Your task to perform on an android device: Go to eBay Image 0: 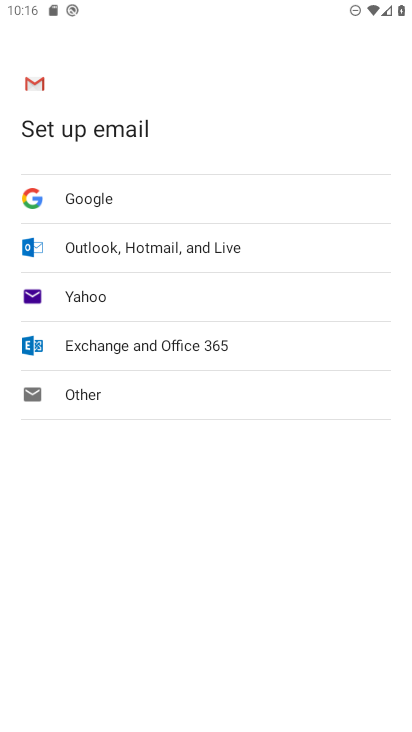
Step 0: press home button
Your task to perform on an android device: Go to eBay Image 1: 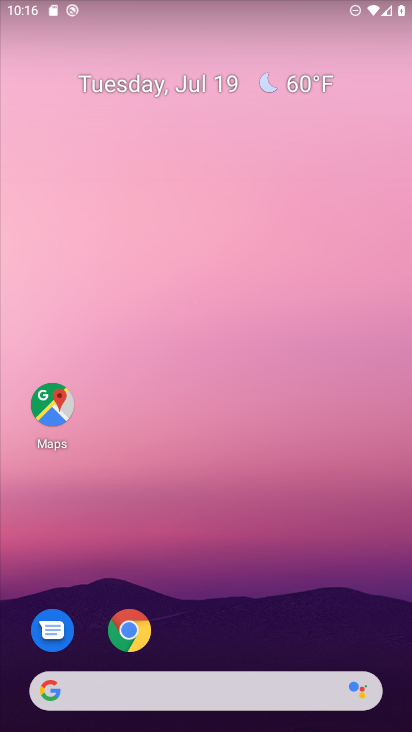
Step 1: click (91, 694)
Your task to perform on an android device: Go to eBay Image 2: 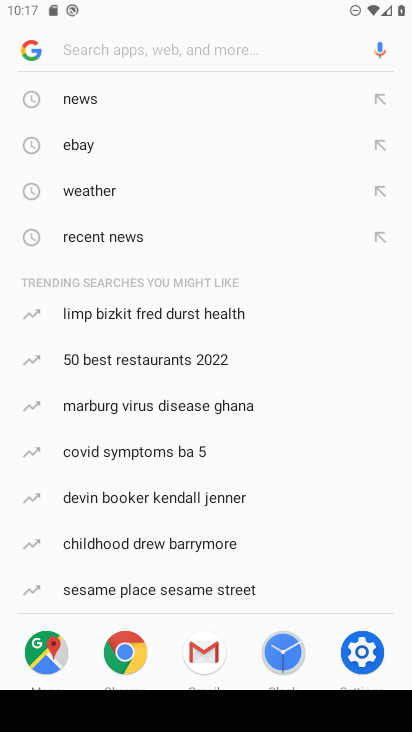
Step 2: click (80, 151)
Your task to perform on an android device: Go to eBay Image 3: 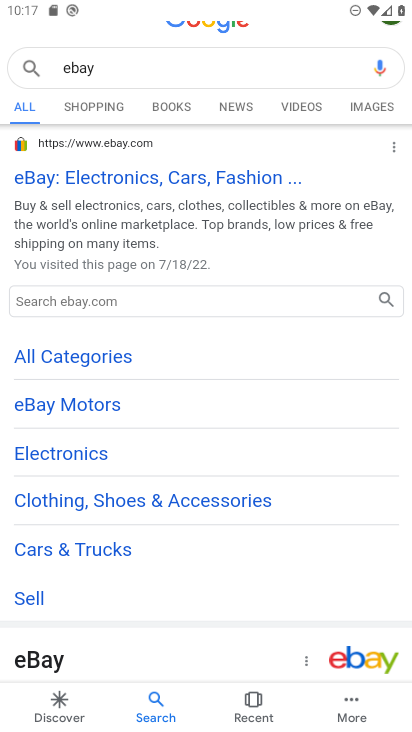
Step 3: task complete